Your task to perform on an android device: Find coffee shops on Maps Image 0: 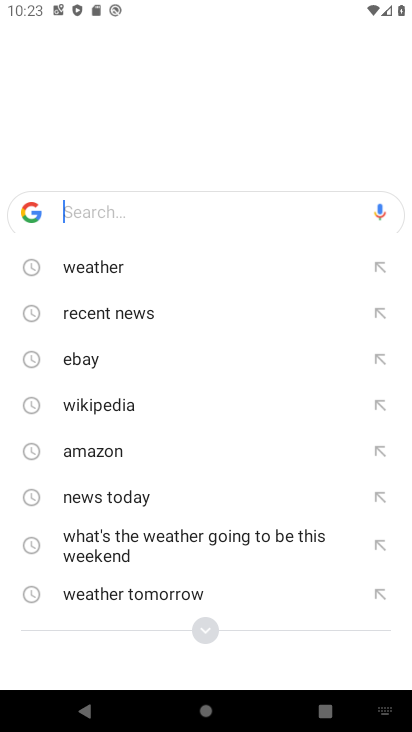
Step 0: press home button
Your task to perform on an android device: Find coffee shops on Maps Image 1: 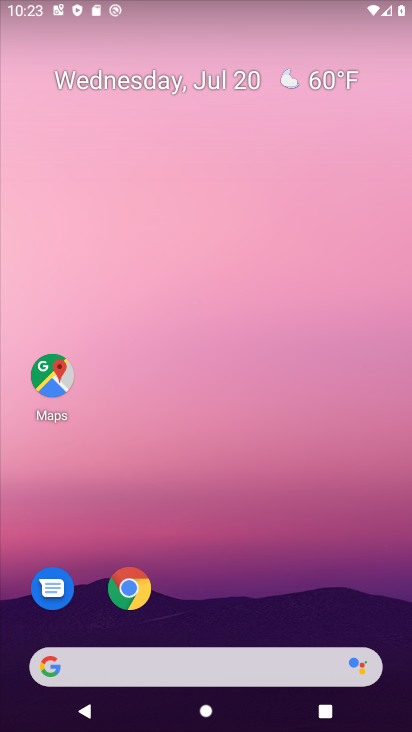
Step 1: drag from (230, 597) to (188, 10)
Your task to perform on an android device: Find coffee shops on Maps Image 2: 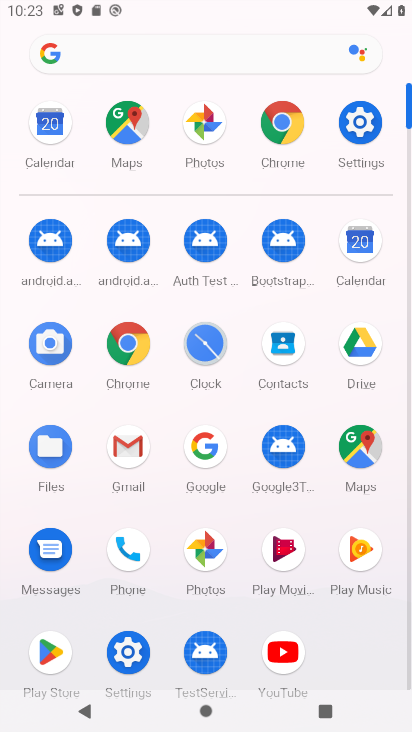
Step 2: click (360, 450)
Your task to perform on an android device: Find coffee shops on Maps Image 3: 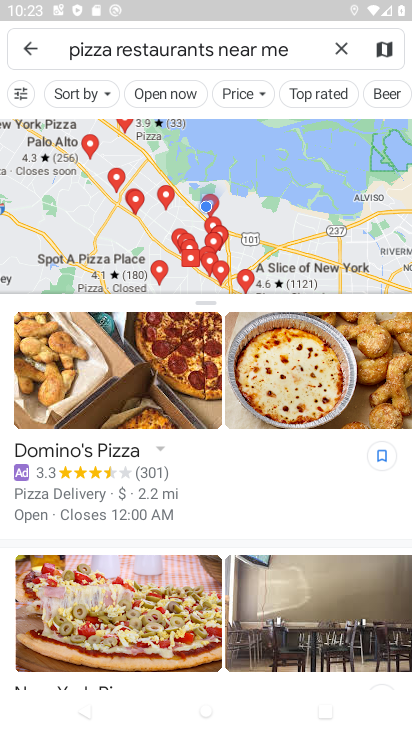
Step 3: click (341, 44)
Your task to perform on an android device: Find coffee shops on Maps Image 4: 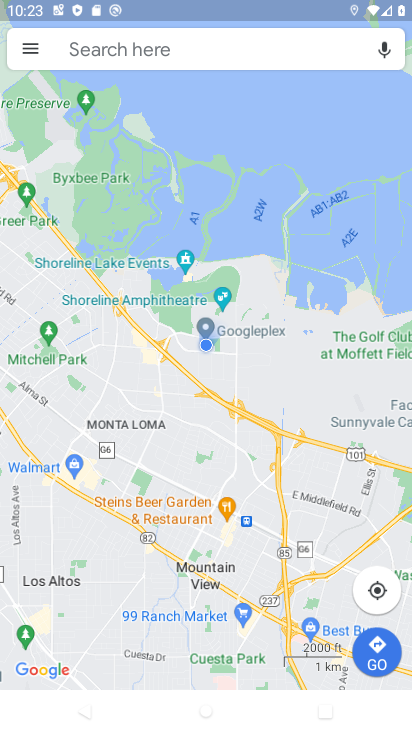
Step 4: click (172, 50)
Your task to perform on an android device: Find coffee shops on Maps Image 5: 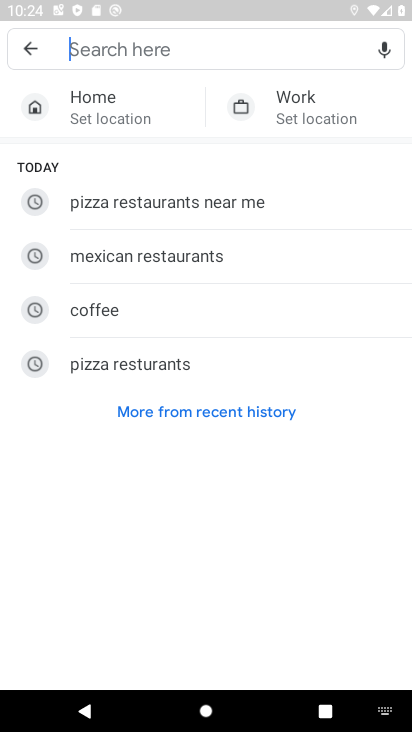
Step 5: type "coffee shops"
Your task to perform on an android device: Find coffee shops on Maps Image 6: 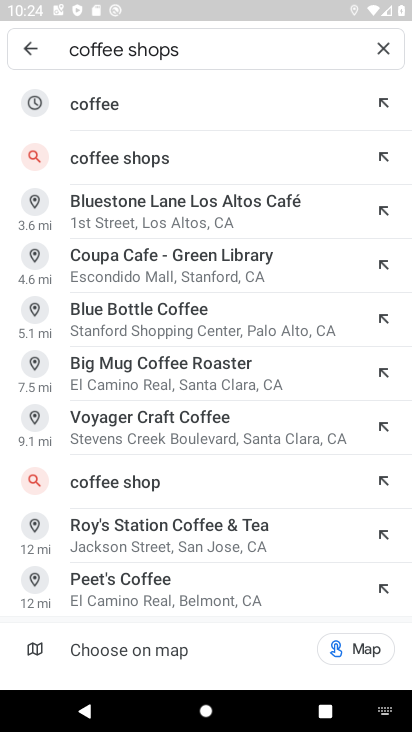
Step 6: click (132, 154)
Your task to perform on an android device: Find coffee shops on Maps Image 7: 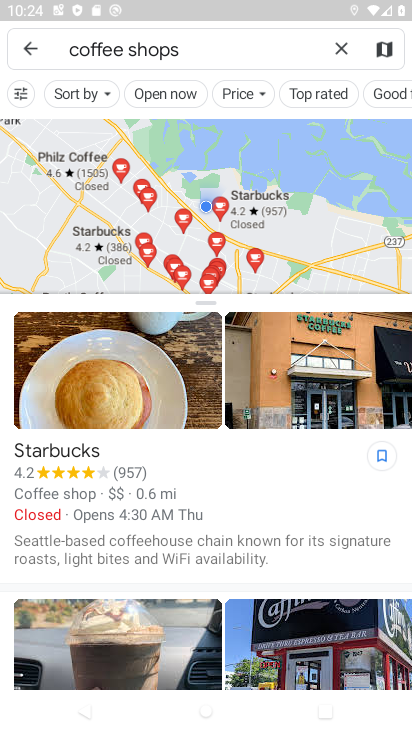
Step 7: task complete